Your task to perform on an android device: check the backup settings in the google photos Image 0: 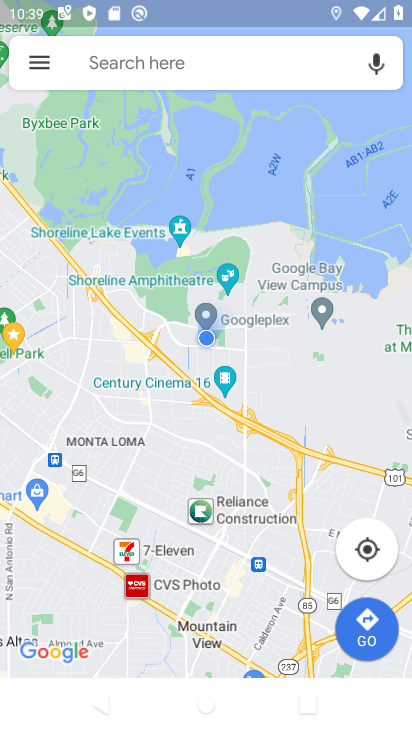
Step 0: press home button
Your task to perform on an android device: check the backup settings in the google photos Image 1: 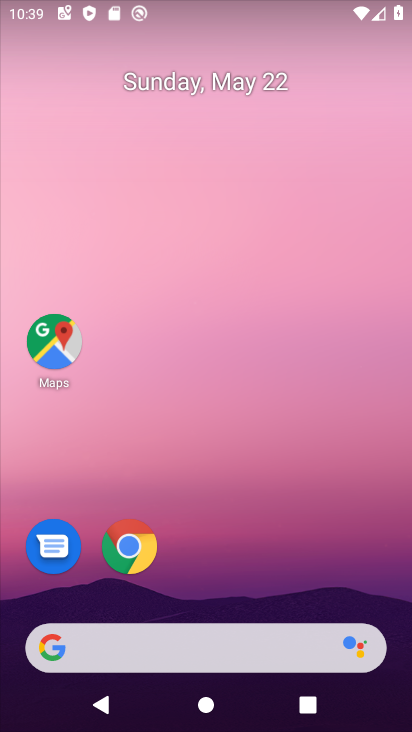
Step 1: drag from (224, 564) to (245, 0)
Your task to perform on an android device: check the backup settings in the google photos Image 2: 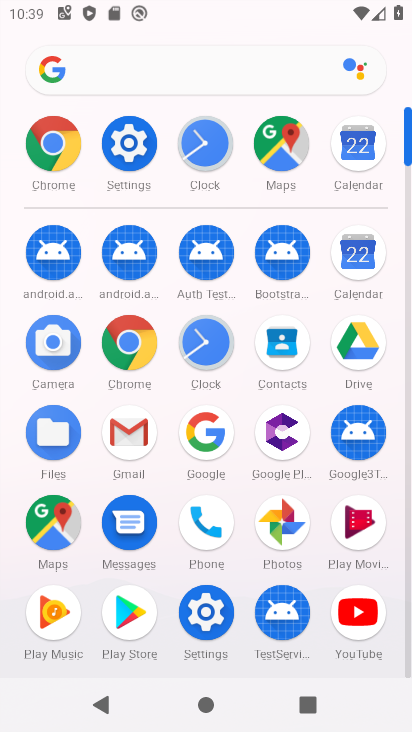
Step 2: click (284, 529)
Your task to perform on an android device: check the backup settings in the google photos Image 3: 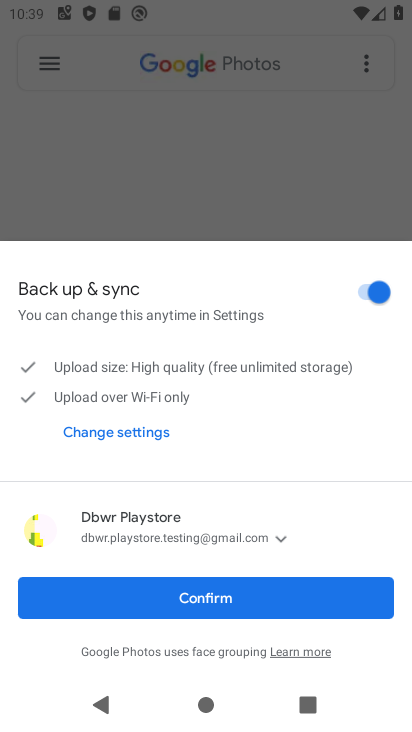
Step 3: click (246, 606)
Your task to perform on an android device: check the backup settings in the google photos Image 4: 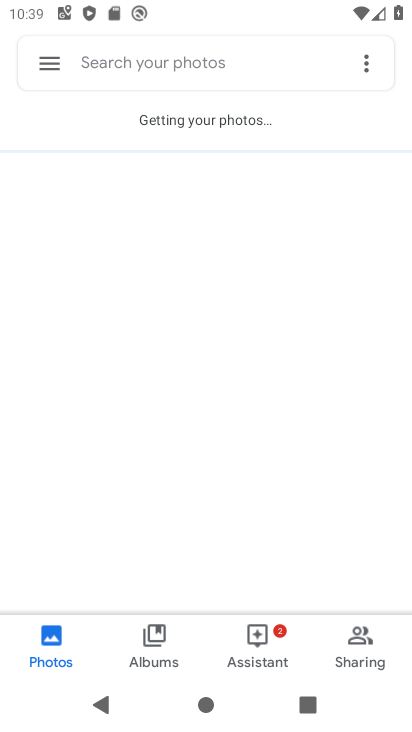
Step 4: click (54, 68)
Your task to perform on an android device: check the backup settings in the google photos Image 5: 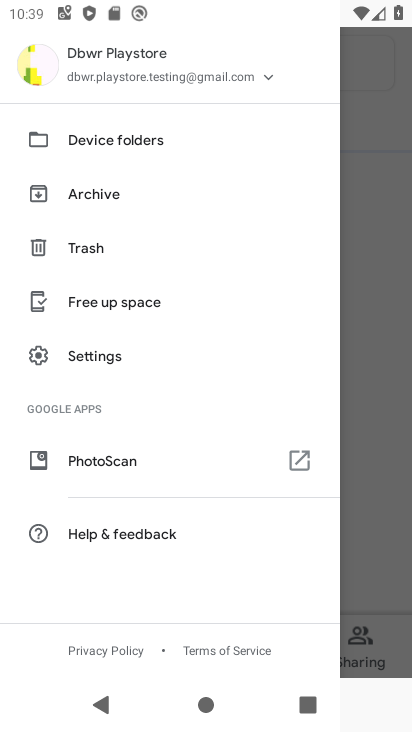
Step 5: click (102, 351)
Your task to perform on an android device: check the backup settings in the google photos Image 6: 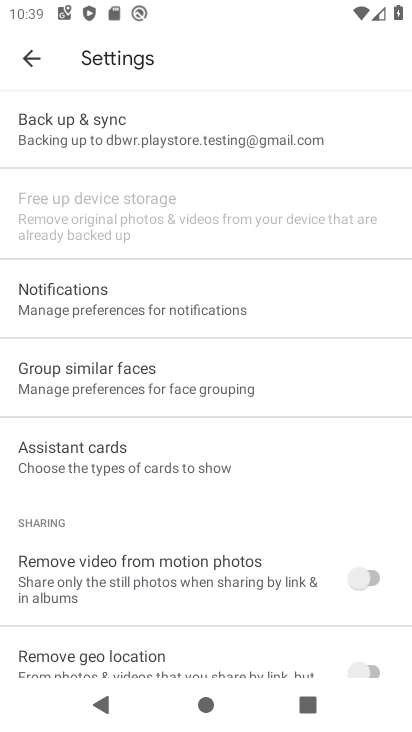
Step 6: click (109, 139)
Your task to perform on an android device: check the backup settings in the google photos Image 7: 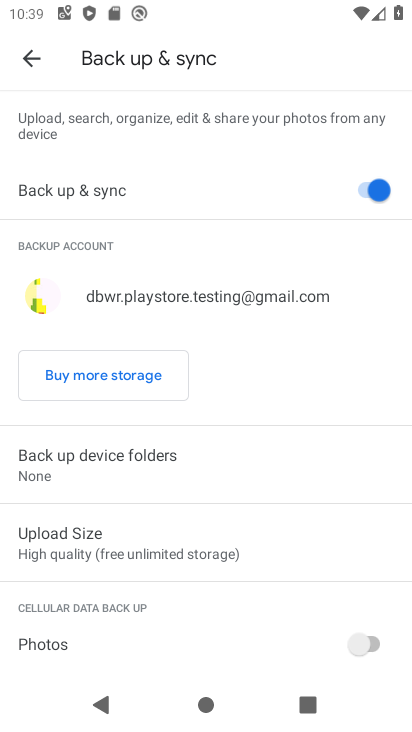
Step 7: task complete